Your task to perform on an android device: change timer sound Image 0: 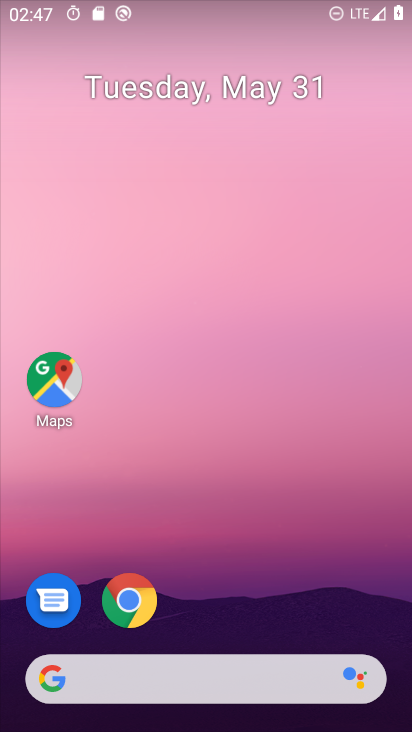
Step 0: drag from (209, 721) to (209, 192)
Your task to perform on an android device: change timer sound Image 1: 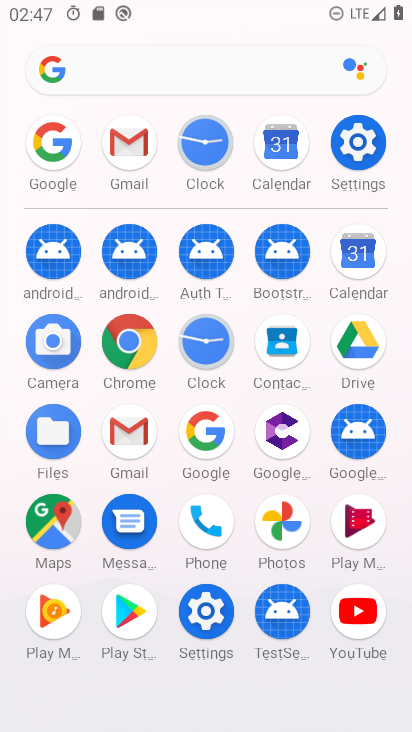
Step 1: click (205, 341)
Your task to perform on an android device: change timer sound Image 2: 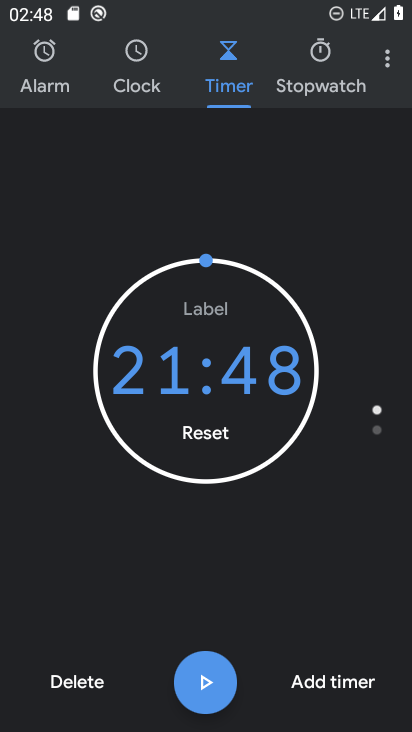
Step 2: click (388, 65)
Your task to perform on an android device: change timer sound Image 3: 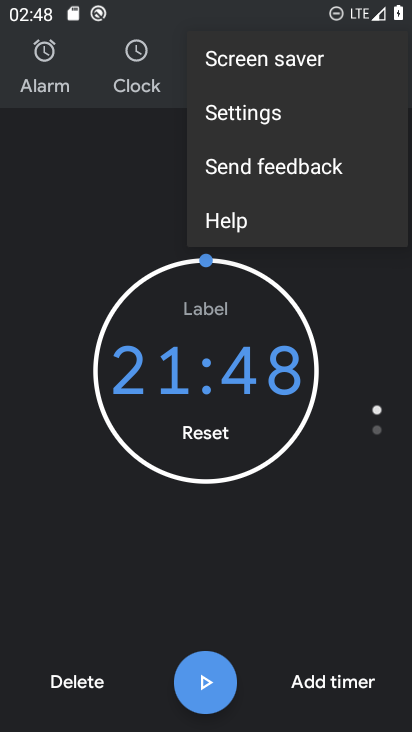
Step 3: click (239, 112)
Your task to perform on an android device: change timer sound Image 4: 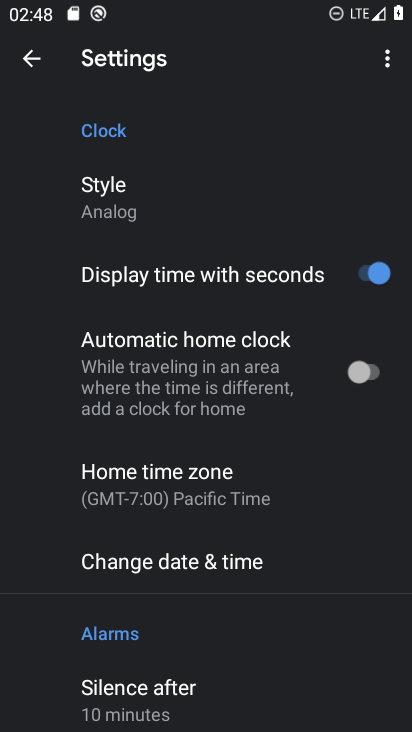
Step 4: drag from (175, 670) to (175, 322)
Your task to perform on an android device: change timer sound Image 5: 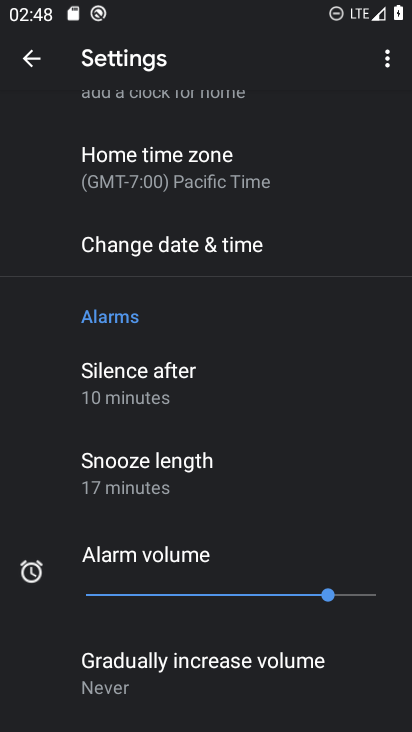
Step 5: drag from (192, 635) to (195, 269)
Your task to perform on an android device: change timer sound Image 6: 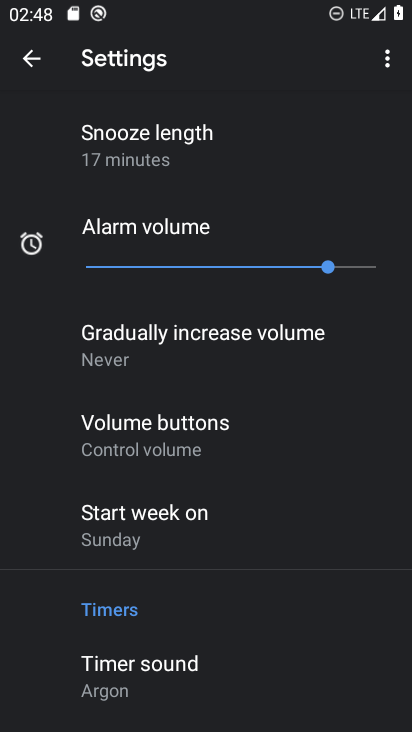
Step 6: click (157, 665)
Your task to perform on an android device: change timer sound Image 7: 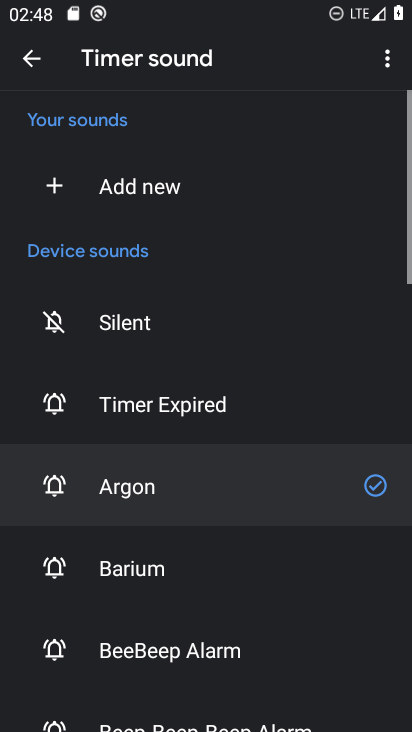
Step 7: click (157, 645)
Your task to perform on an android device: change timer sound Image 8: 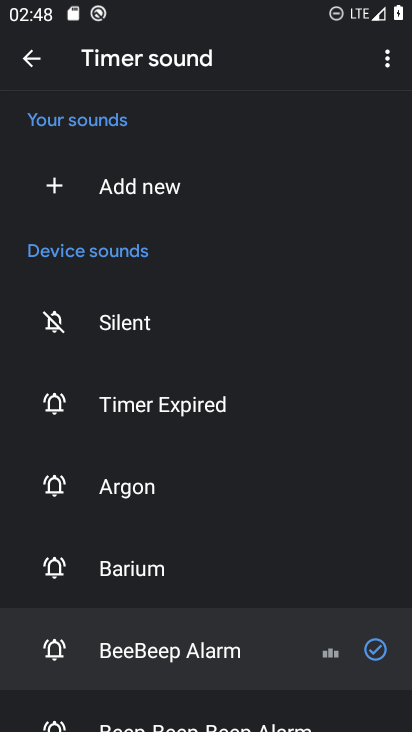
Step 8: task complete